Your task to perform on an android device: Open Youtube and go to the subscriptions tab Image 0: 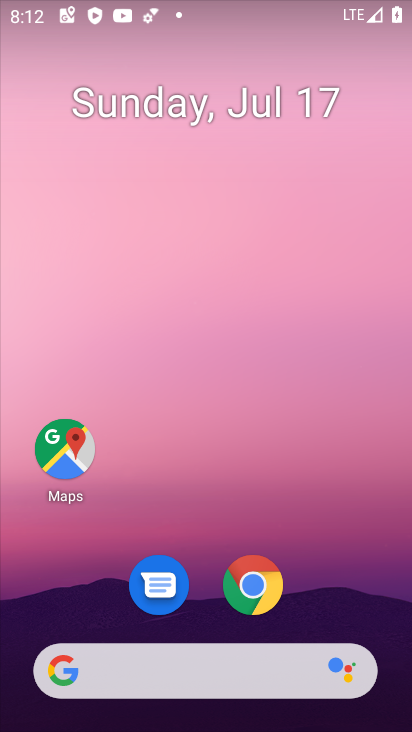
Step 0: drag from (325, 567) to (241, 27)
Your task to perform on an android device: Open Youtube and go to the subscriptions tab Image 1: 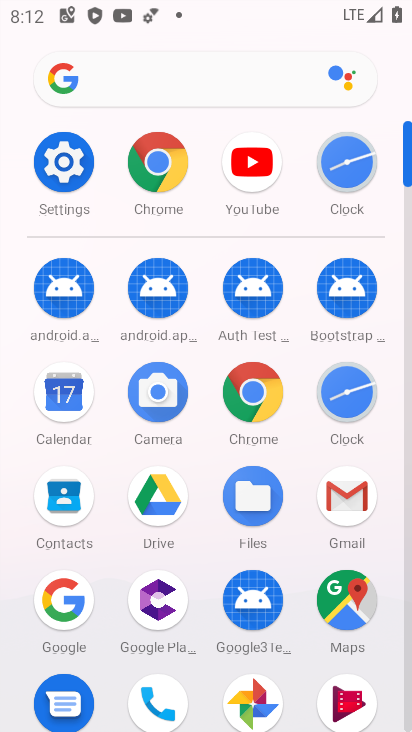
Step 1: click (271, 162)
Your task to perform on an android device: Open Youtube and go to the subscriptions tab Image 2: 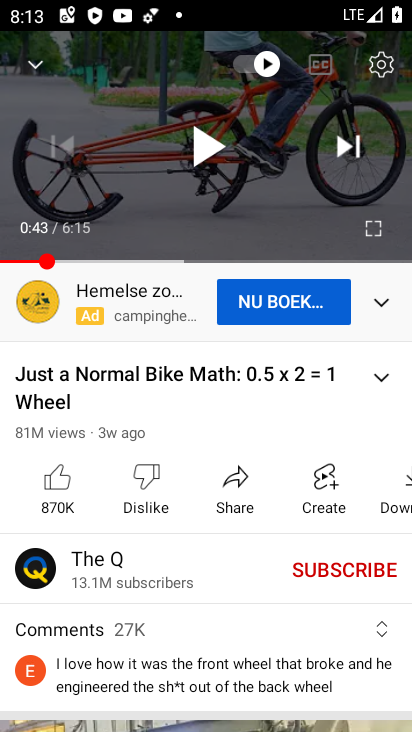
Step 2: press back button
Your task to perform on an android device: Open Youtube and go to the subscriptions tab Image 3: 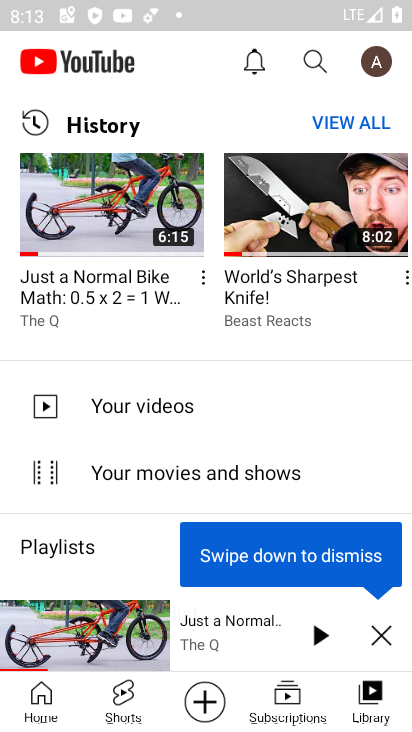
Step 3: click (273, 701)
Your task to perform on an android device: Open Youtube and go to the subscriptions tab Image 4: 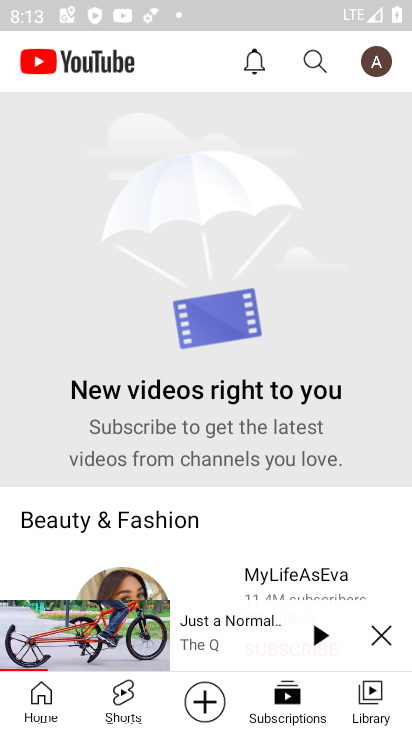
Step 4: task complete